Your task to perform on an android device: Open privacy settings Image 0: 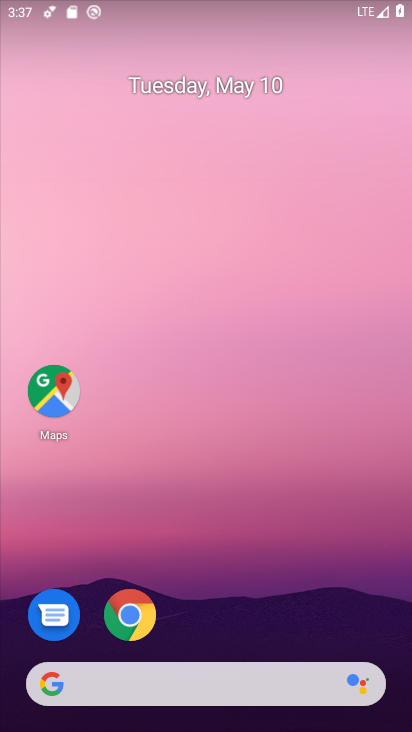
Step 0: drag from (239, 597) to (196, 124)
Your task to perform on an android device: Open privacy settings Image 1: 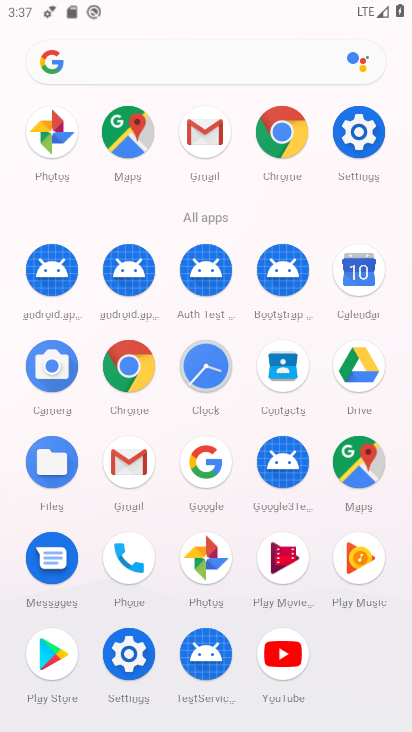
Step 1: click (359, 134)
Your task to perform on an android device: Open privacy settings Image 2: 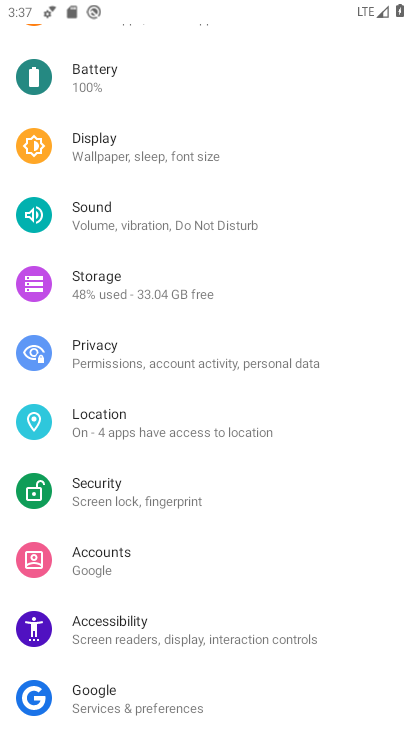
Step 2: click (133, 367)
Your task to perform on an android device: Open privacy settings Image 3: 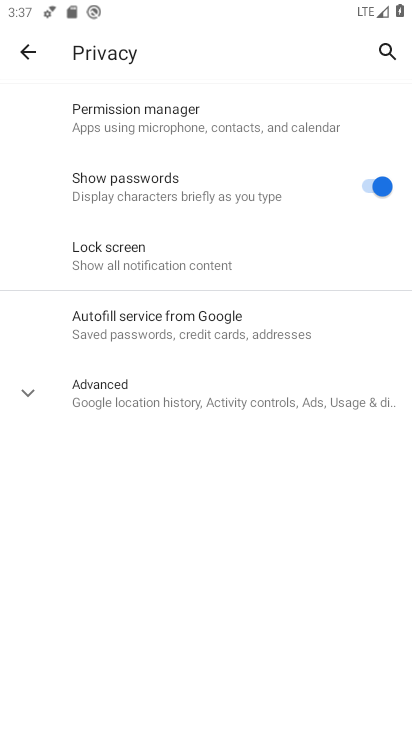
Step 3: task complete